Your task to perform on an android device: turn off wifi Image 0: 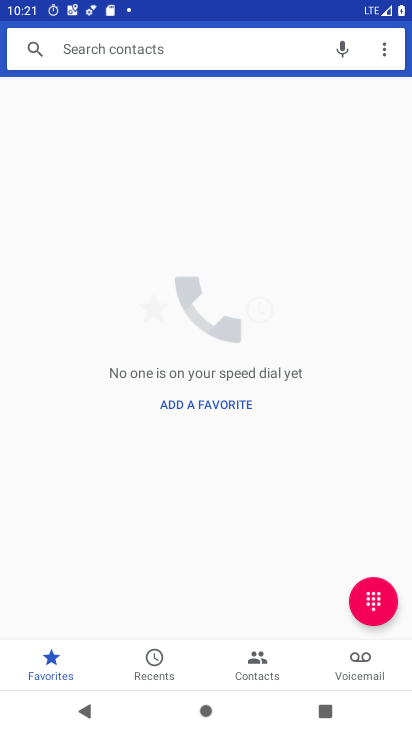
Step 0: press home button
Your task to perform on an android device: turn off wifi Image 1: 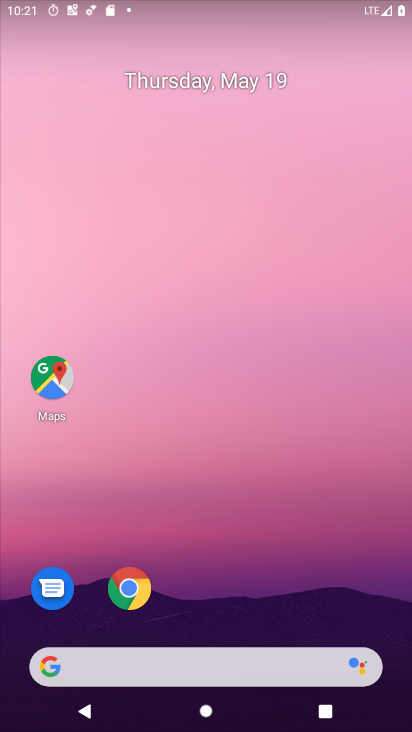
Step 1: drag from (196, 668) to (373, 120)
Your task to perform on an android device: turn off wifi Image 2: 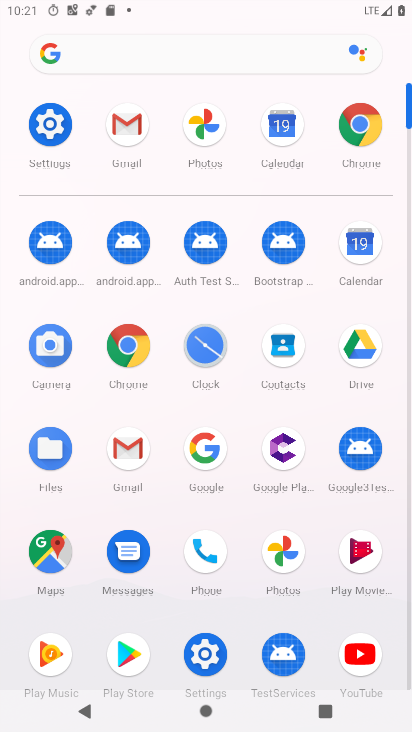
Step 2: click (56, 131)
Your task to perform on an android device: turn off wifi Image 3: 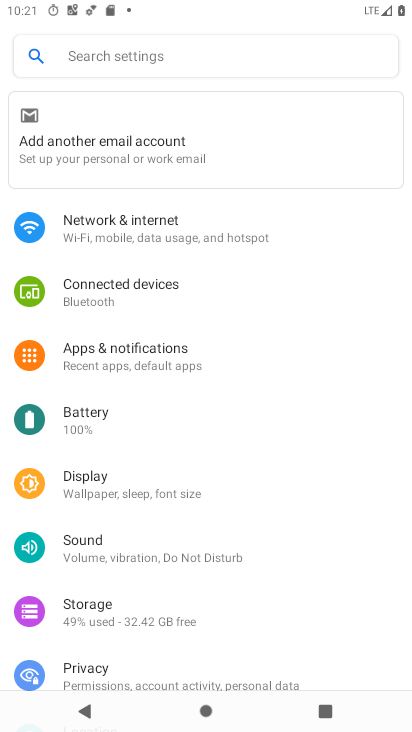
Step 3: click (169, 226)
Your task to perform on an android device: turn off wifi Image 4: 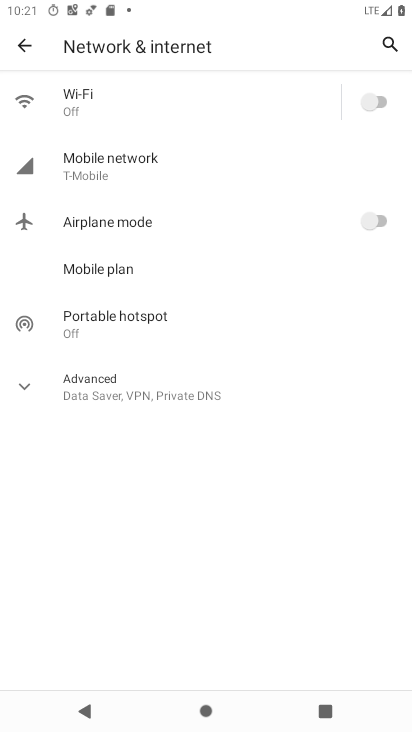
Step 4: task complete